Your task to perform on an android device: Is it going to rain today? Image 0: 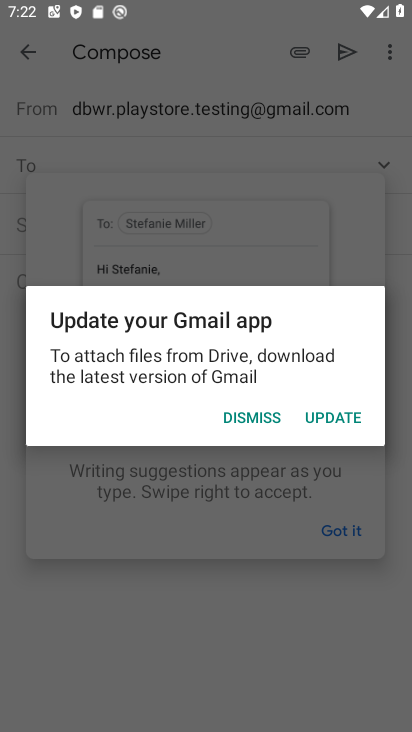
Step 0: press home button
Your task to perform on an android device: Is it going to rain today? Image 1: 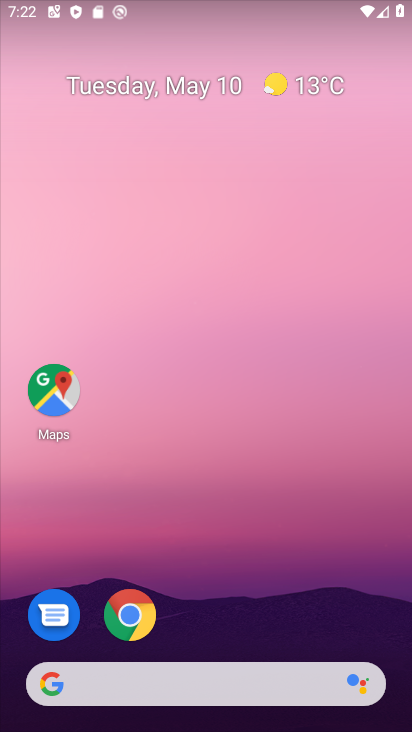
Step 1: click (299, 86)
Your task to perform on an android device: Is it going to rain today? Image 2: 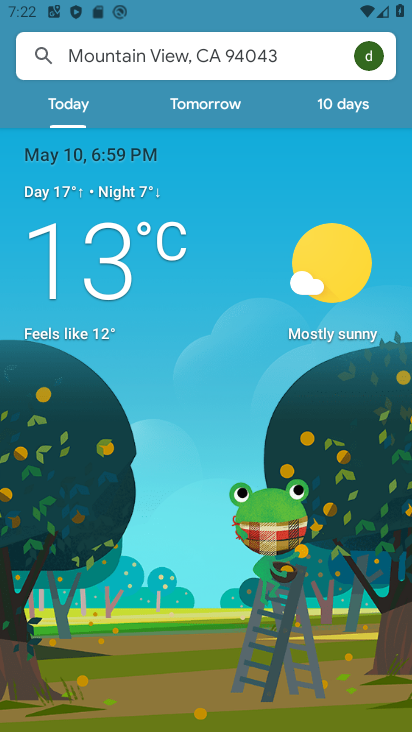
Step 2: task complete